Your task to perform on an android device: Go to Amazon Image 0: 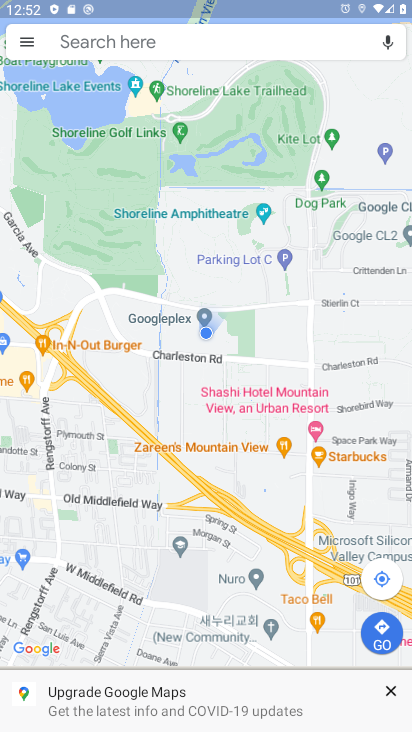
Step 0: press home button
Your task to perform on an android device: Go to Amazon Image 1: 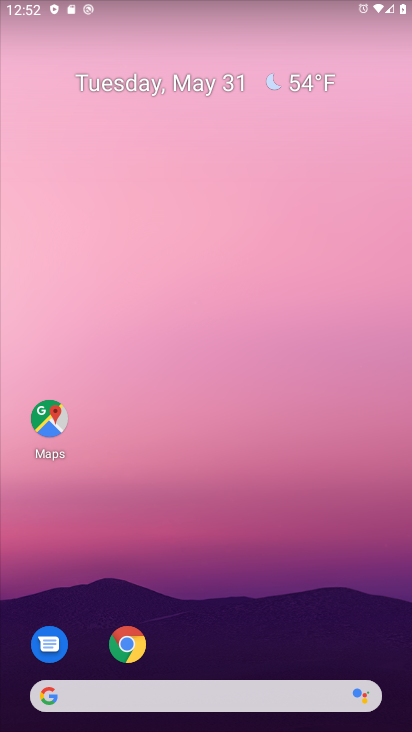
Step 1: click (47, 696)
Your task to perform on an android device: Go to Amazon Image 2: 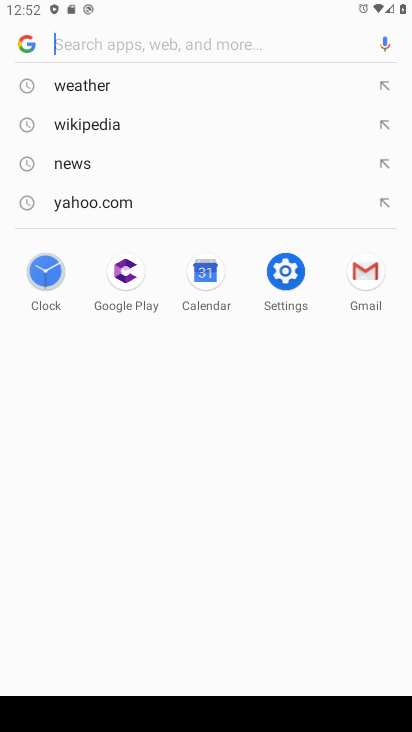
Step 2: type "Amazon"
Your task to perform on an android device: Go to Amazon Image 3: 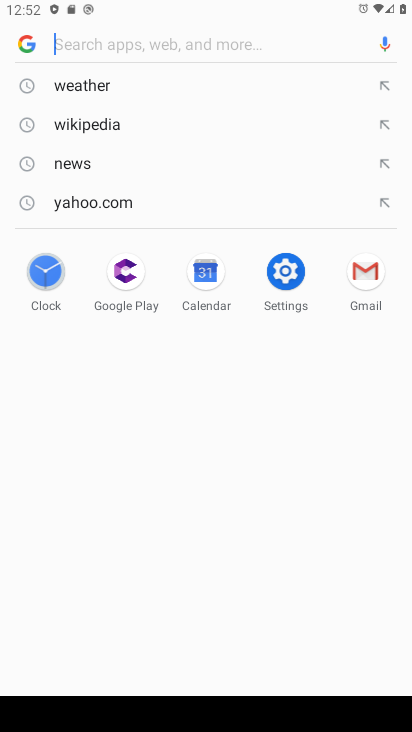
Step 3: click (189, 39)
Your task to perform on an android device: Go to Amazon Image 4: 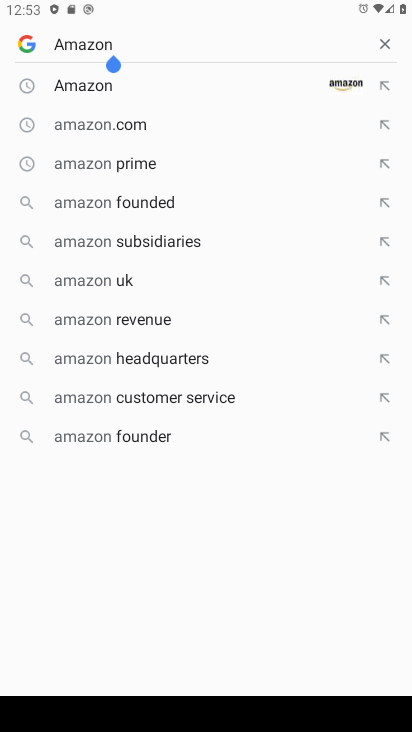
Step 4: click (73, 87)
Your task to perform on an android device: Go to Amazon Image 5: 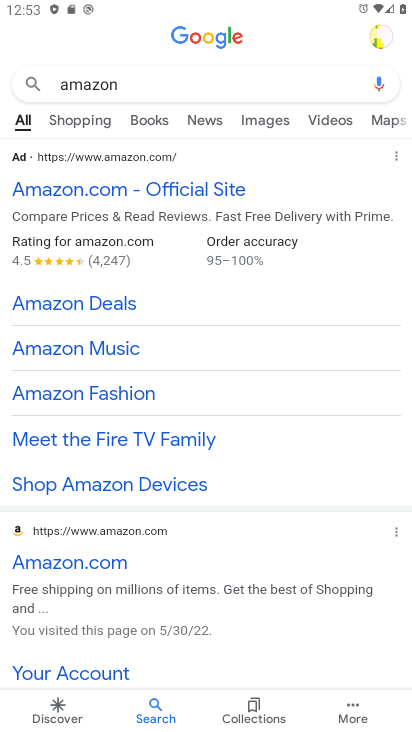
Step 5: click (108, 186)
Your task to perform on an android device: Go to Amazon Image 6: 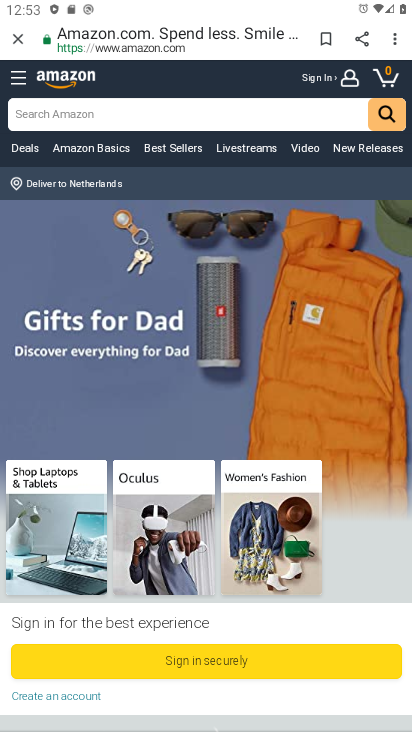
Step 6: task complete